Your task to perform on an android device: Search for vegetarian restaurants on Maps Image 0: 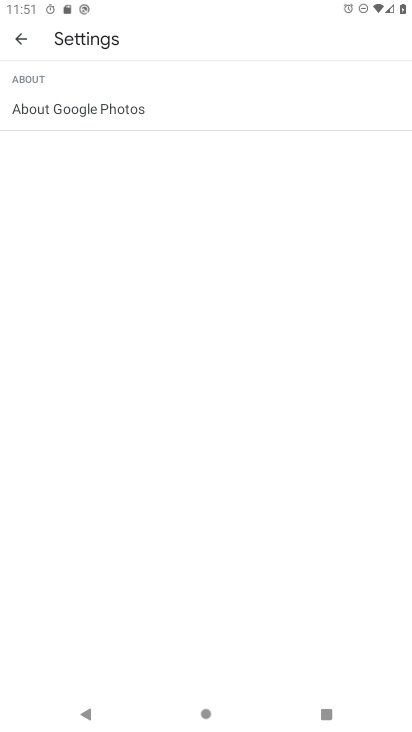
Step 0: press home button
Your task to perform on an android device: Search for vegetarian restaurants on Maps Image 1: 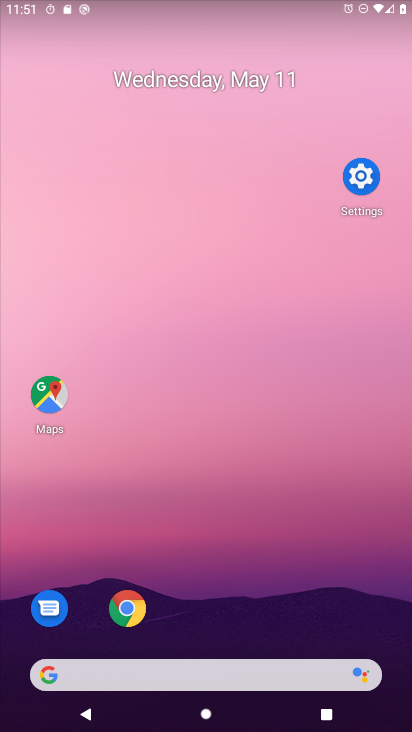
Step 1: drag from (316, 645) to (113, 13)
Your task to perform on an android device: Search for vegetarian restaurants on Maps Image 2: 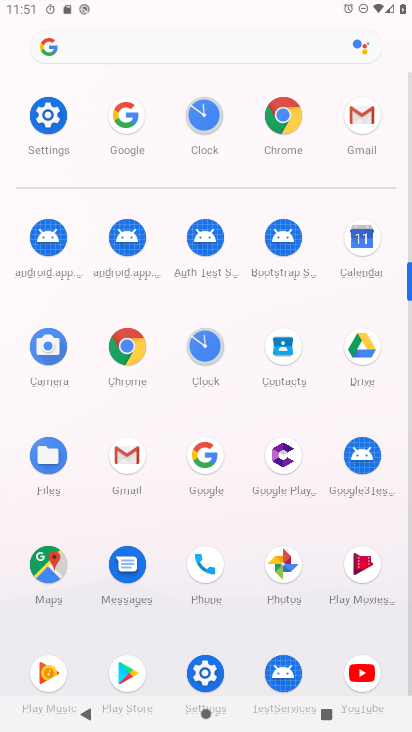
Step 2: click (43, 551)
Your task to perform on an android device: Search for vegetarian restaurants on Maps Image 3: 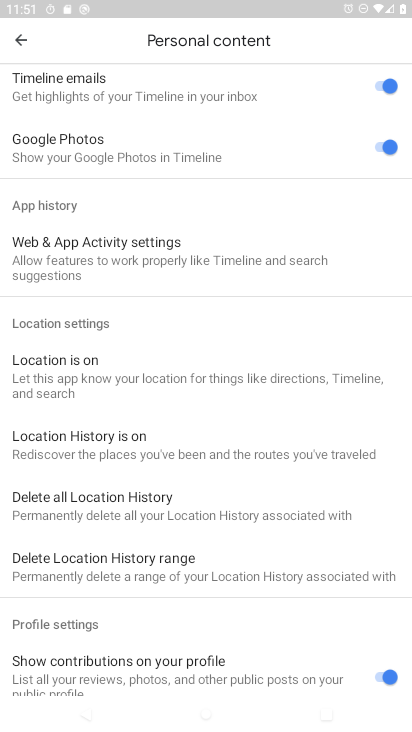
Step 3: click (12, 39)
Your task to perform on an android device: Search for vegetarian restaurants on Maps Image 4: 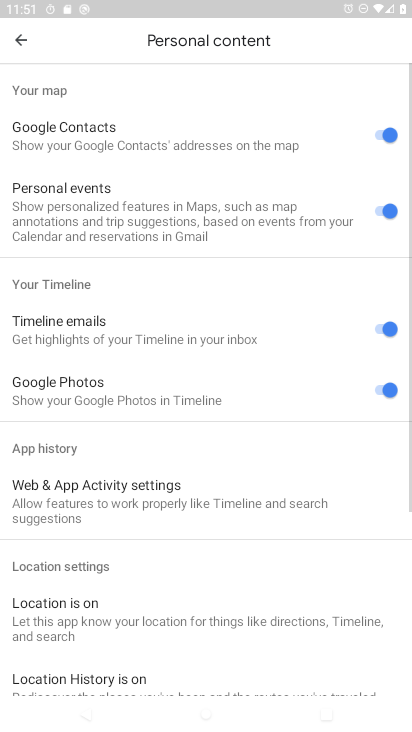
Step 4: click (14, 46)
Your task to perform on an android device: Search for vegetarian restaurants on Maps Image 5: 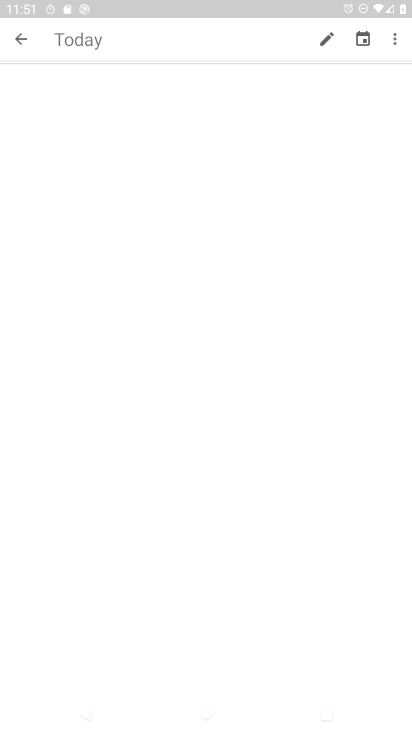
Step 5: click (60, 35)
Your task to perform on an android device: Search for vegetarian restaurants on Maps Image 6: 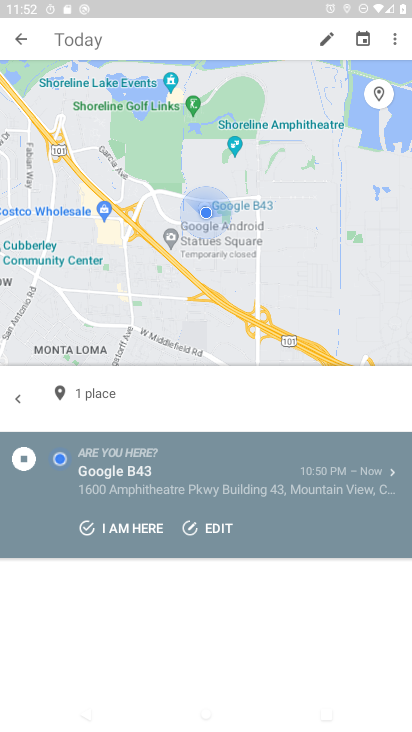
Step 6: click (59, 41)
Your task to perform on an android device: Search for vegetarian restaurants on Maps Image 7: 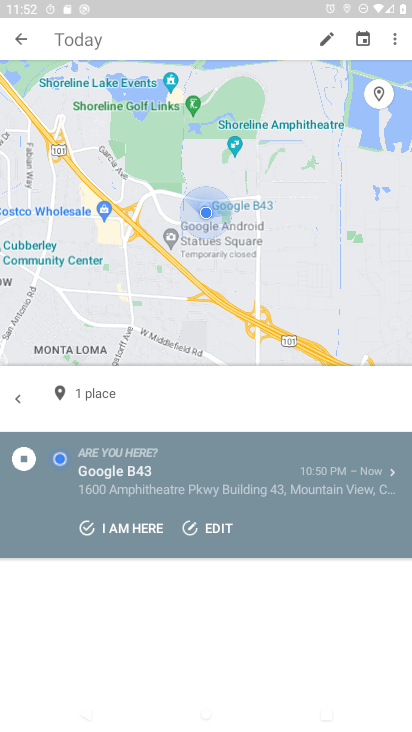
Step 7: click (55, 42)
Your task to perform on an android device: Search for vegetarian restaurants on Maps Image 8: 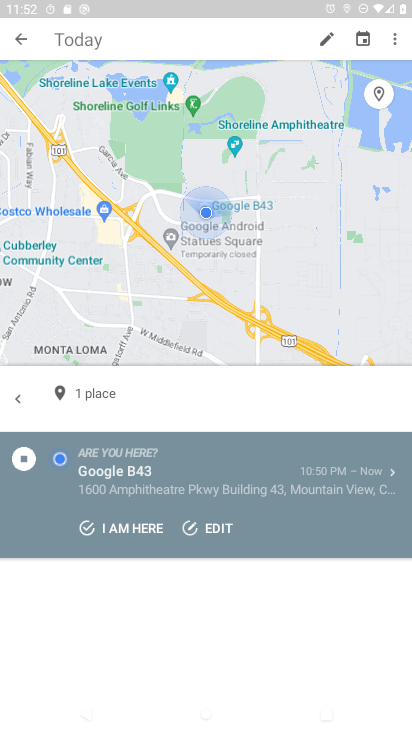
Step 8: click (56, 41)
Your task to perform on an android device: Search for vegetarian restaurants on Maps Image 9: 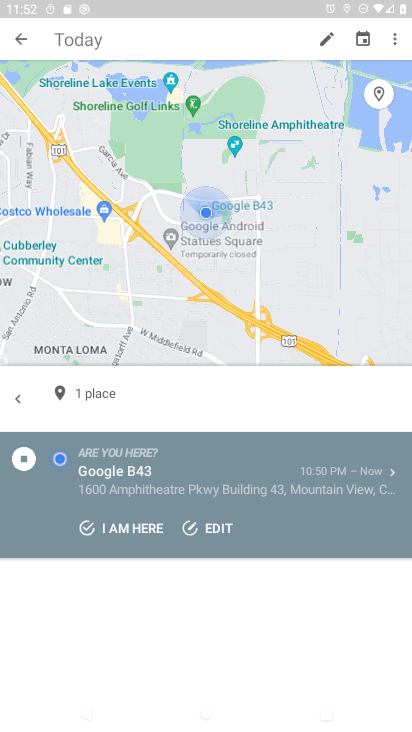
Step 9: click (56, 40)
Your task to perform on an android device: Search for vegetarian restaurants on Maps Image 10: 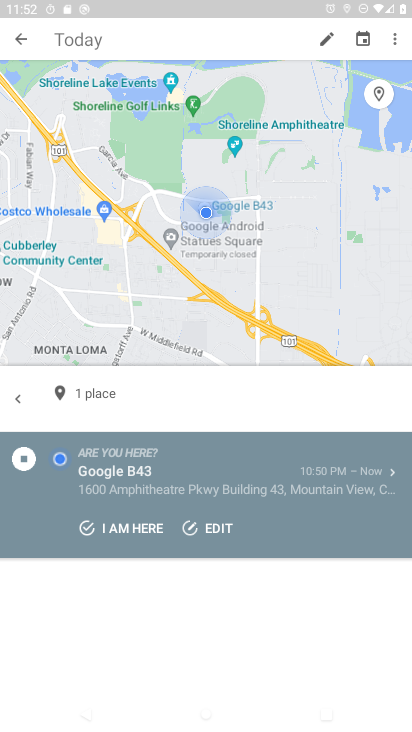
Step 10: click (56, 39)
Your task to perform on an android device: Search for vegetarian restaurants on Maps Image 11: 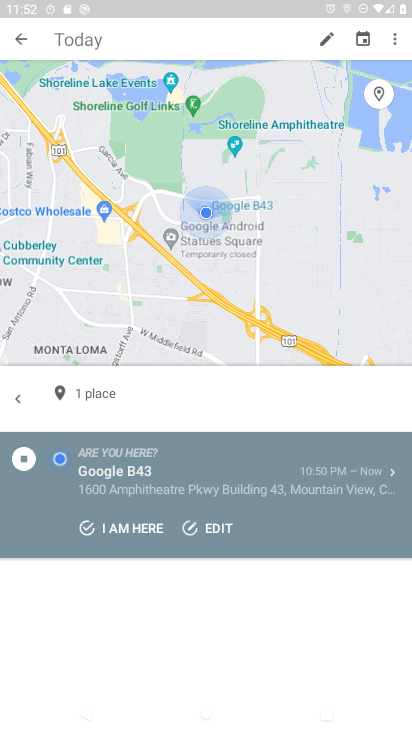
Step 11: click (56, 39)
Your task to perform on an android device: Search for vegetarian restaurants on Maps Image 12: 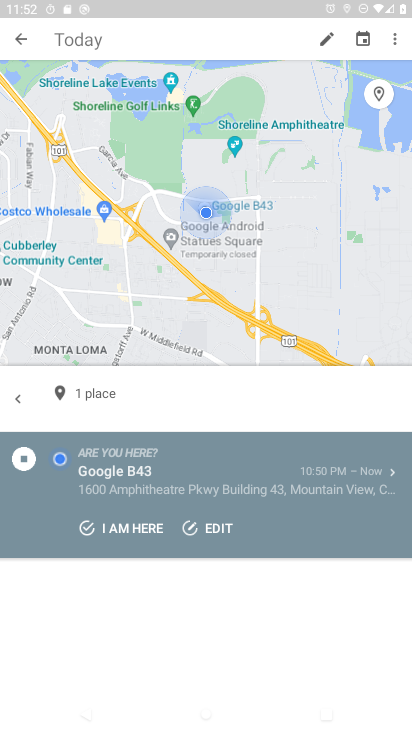
Step 12: click (56, 39)
Your task to perform on an android device: Search for vegetarian restaurants on Maps Image 13: 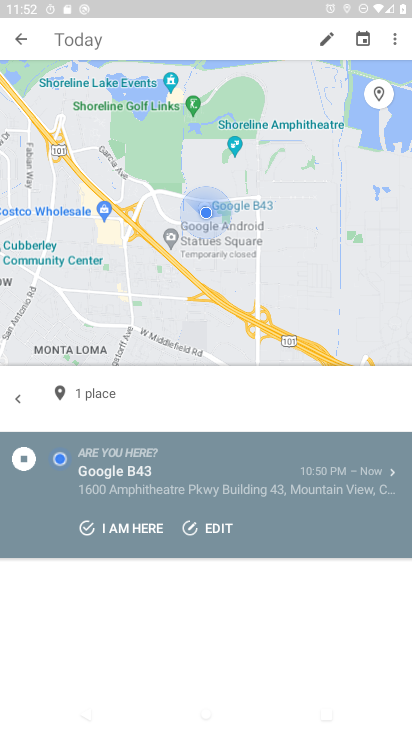
Step 13: click (56, 40)
Your task to perform on an android device: Search for vegetarian restaurants on Maps Image 14: 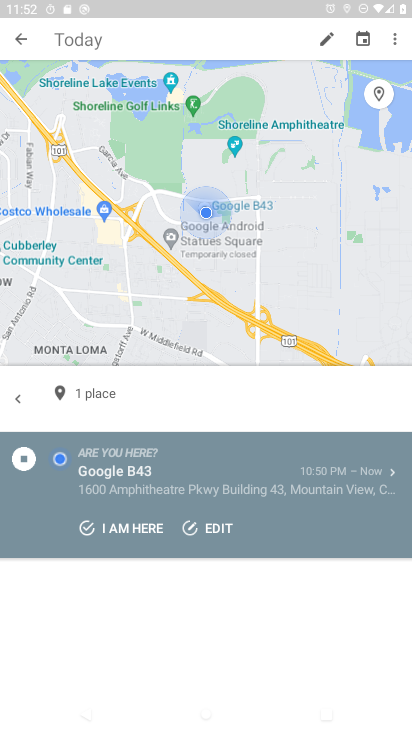
Step 14: click (56, 40)
Your task to perform on an android device: Search for vegetarian restaurants on Maps Image 15: 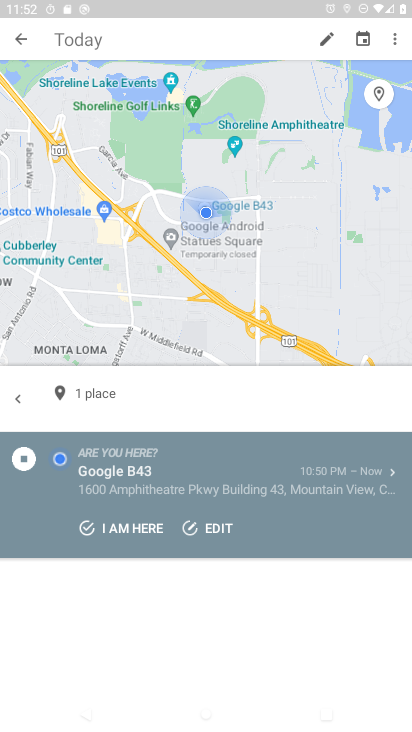
Step 15: click (90, 32)
Your task to perform on an android device: Search for vegetarian restaurants on Maps Image 16: 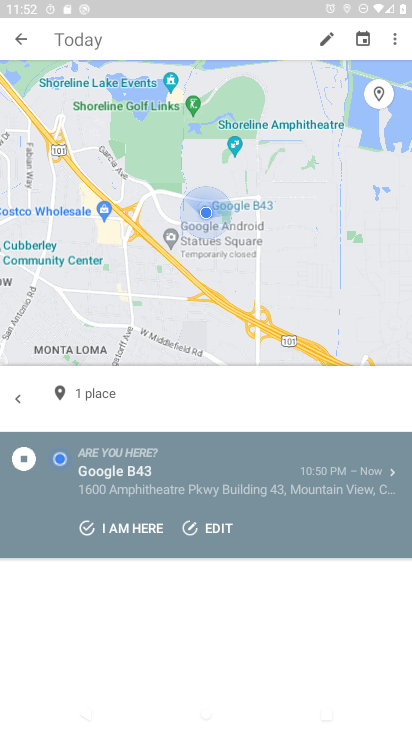
Step 16: click (87, 33)
Your task to perform on an android device: Search for vegetarian restaurants on Maps Image 17: 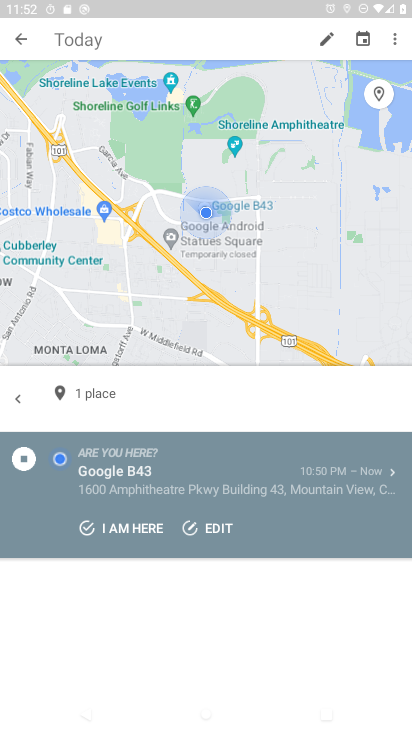
Step 17: click (85, 35)
Your task to perform on an android device: Search for vegetarian restaurants on Maps Image 18: 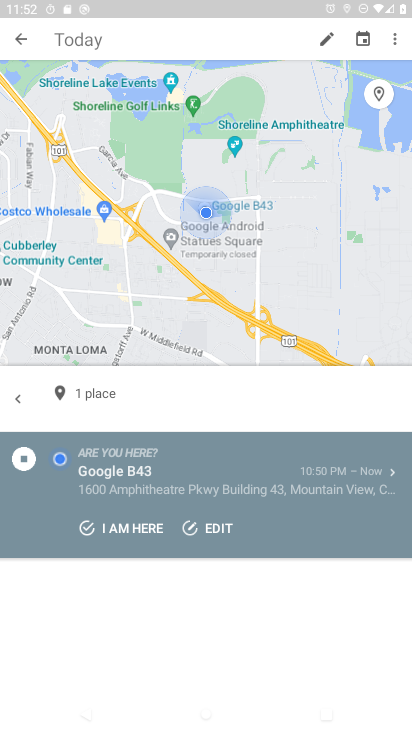
Step 18: click (85, 59)
Your task to perform on an android device: Search for vegetarian restaurants on Maps Image 19: 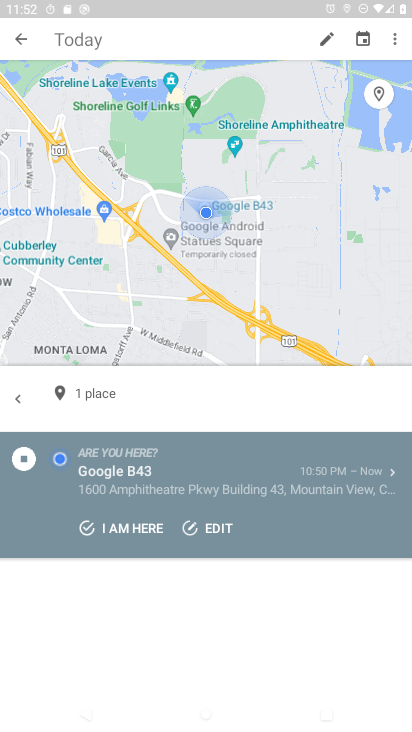
Step 19: click (85, 60)
Your task to perform on an android device: Search for vegetarian restaurants on Maps Image 20: 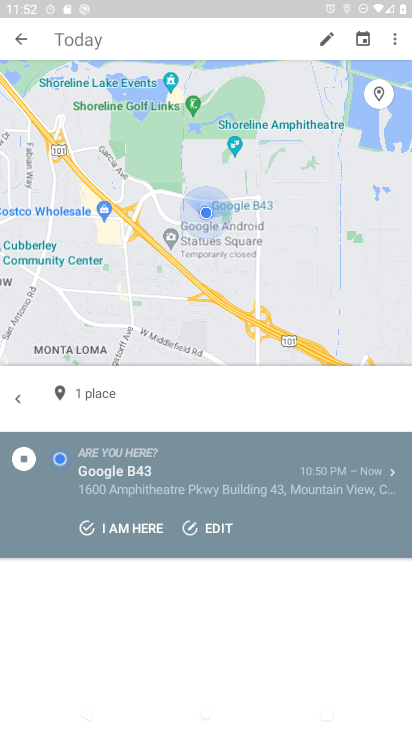
Step 20: click (24, 38)
Your task to perform on an android device: Search for vegetarian restaurants on Maps Image 21: 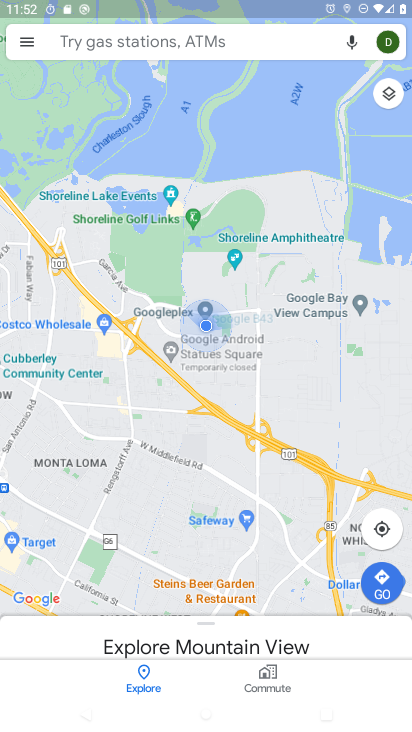
Step 21: click (61, 38)
Your task to perform on an android device: Search for vegetarian restaurants on Maps Image 22: 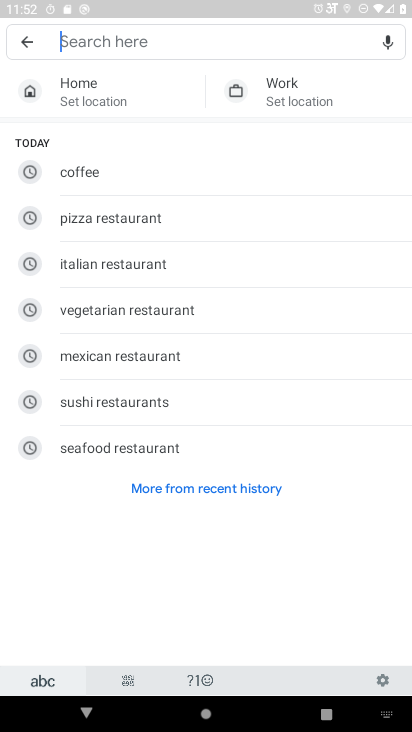
Step 22: click (93, 309)
Your task to perform on an android device: Search for vegetarian restaurants on Maps Image 23: 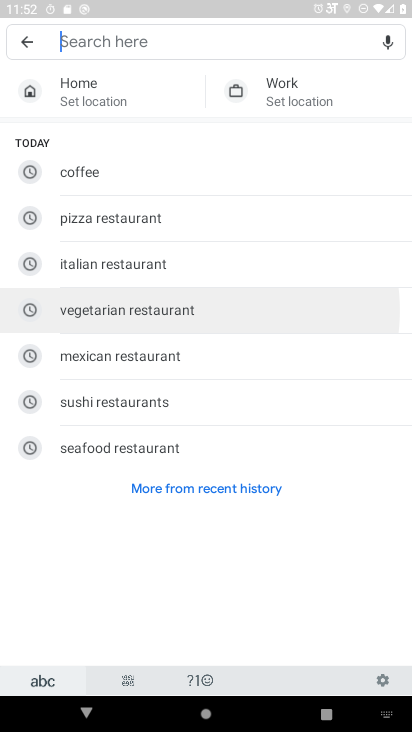
Step 23: click (94, 305)
Your task to perform on an android device: Search for vegetarian restaurants on Maps Image 24: 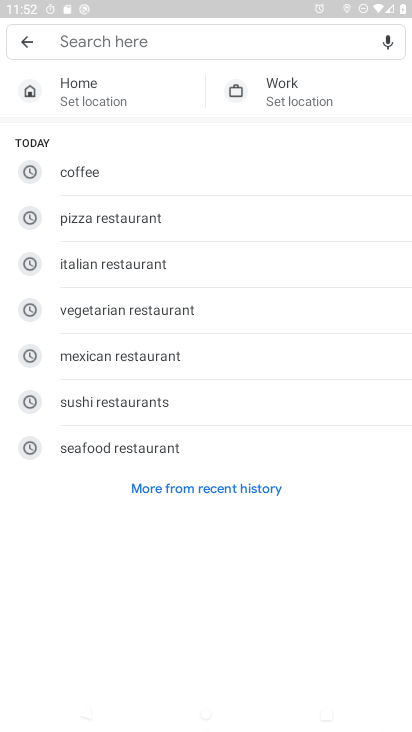
Step 24: click (96, 305)
Your task to perform on an android device: Search for vegetarian restaurants on Maps Image 25: 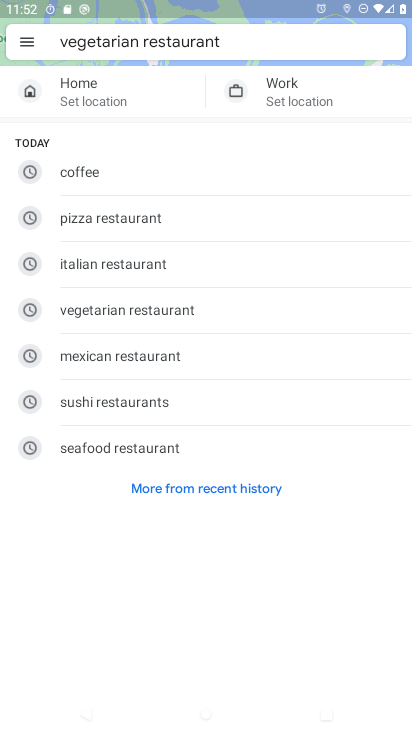
Step 25: click (96, 305)
Your task to perform on an android device: Search for vegetarian restaurants on Maps Image 26: 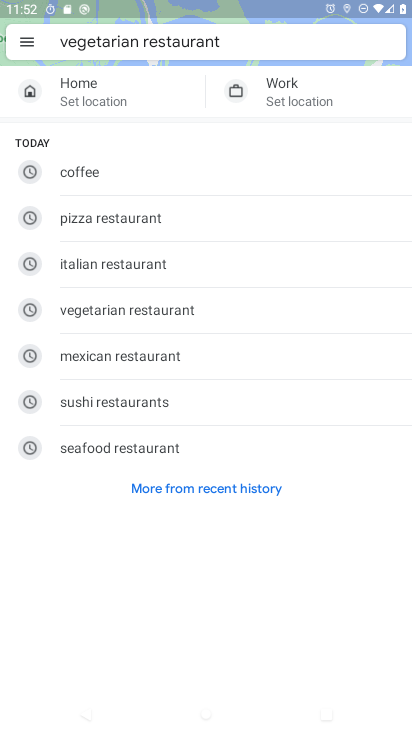
Step 26: click (98, 306)
Your task to perform on an android device: Search for vegetarian restaurants on Maps Image 27: 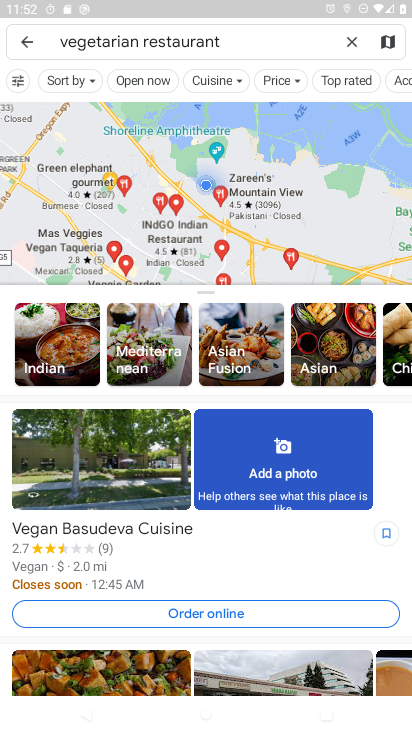
Step 27: task complete